Your task to perform on an android device: Open Google Chrome Image 0: 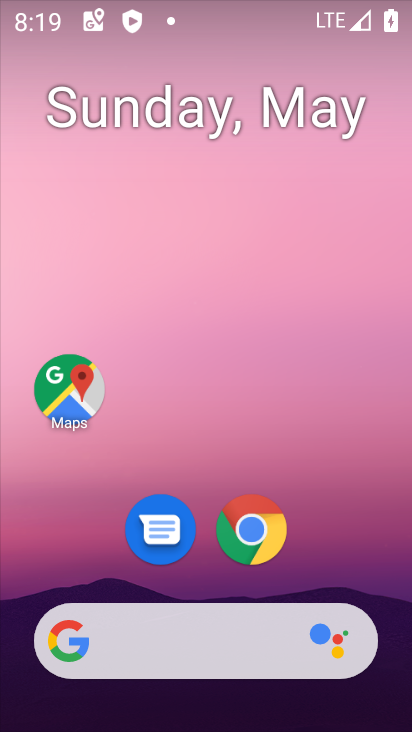
Step 0: click (247, 539)
Your task to perform on an android device: Open Google Chrome Image 1: 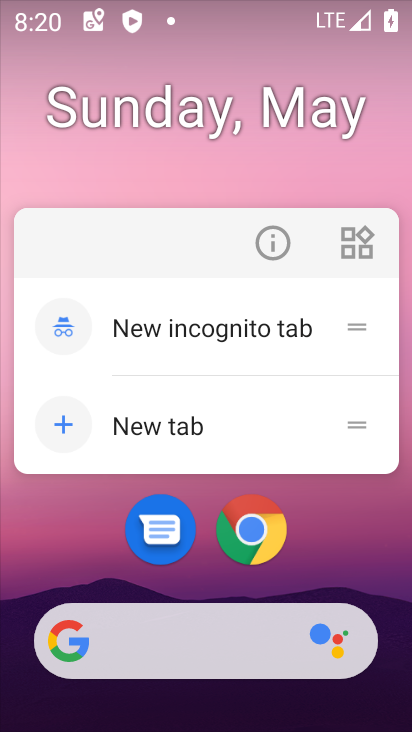
Step 1: click (256, 534)
Your task to perform on an android device: Open Google Chrome Image 2: 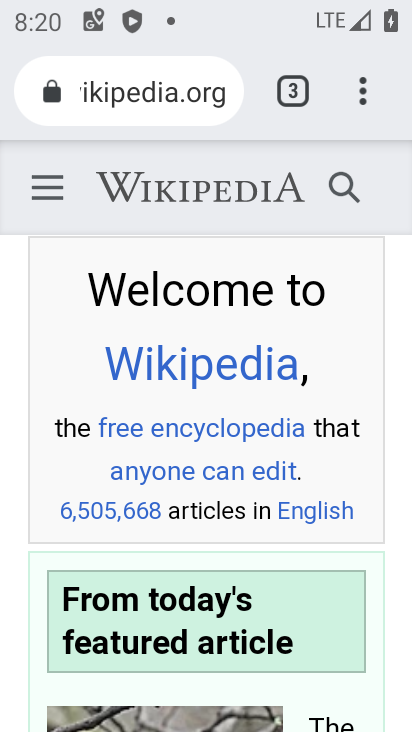
Step 2: click (265, 532)
Your task to perform on an android device: Open Google Chrome Image 3: 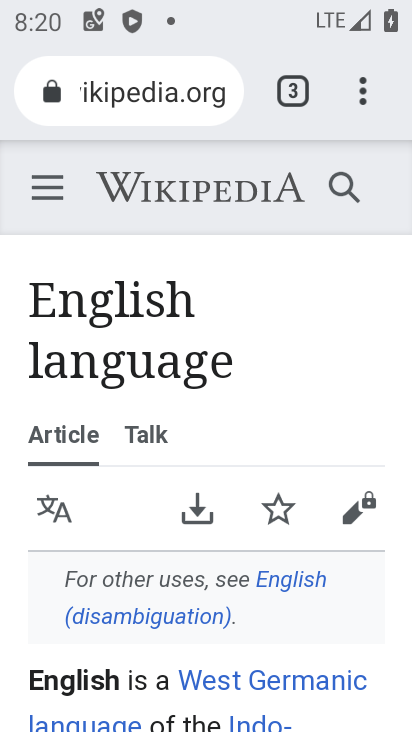
Step 3: task complete